Your task to perform on an android device: turn off priority inbox in the gmail app Image 0: 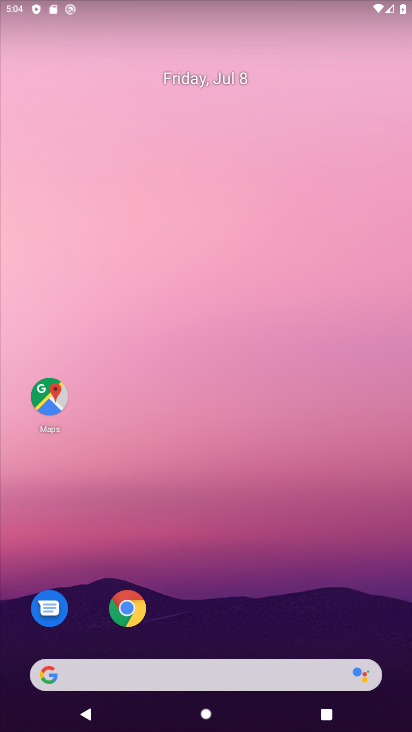
Step 0: drag from (308, 614) to (325, 259)
Your task to perform on an android device: turn off priority inbox in the gmail app Image 1: 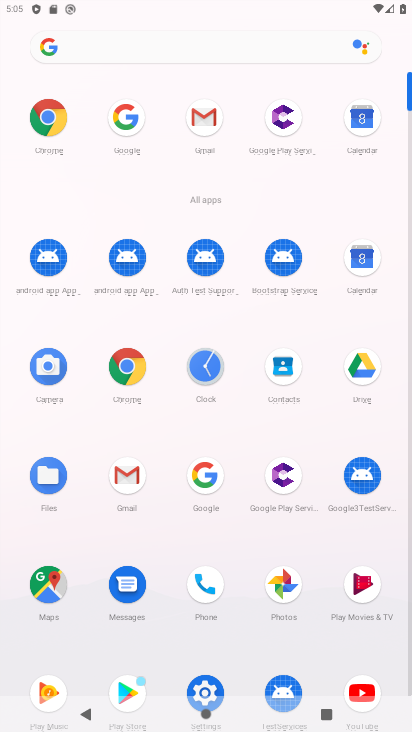
Step 1: click (134, 487)
Your task to perform on an android device: turn off priority inbox in the gmail app Image 2: 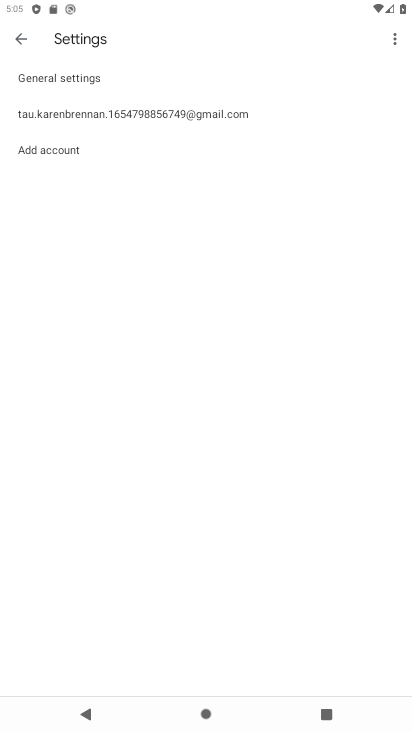
Step 2: click (156, 113)
Your task to perform on an android device: turn off priority inbox in the gmail app Image 3: 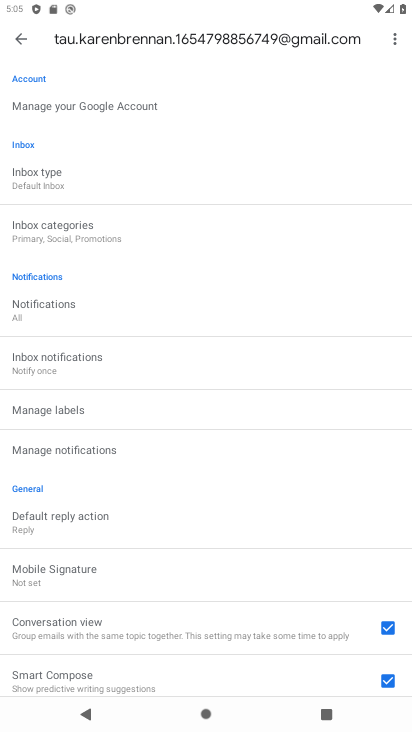
Step 3: click (46, 182)
Your task to perform on an android device: turn off priority inbox in the gmail app Image 4: 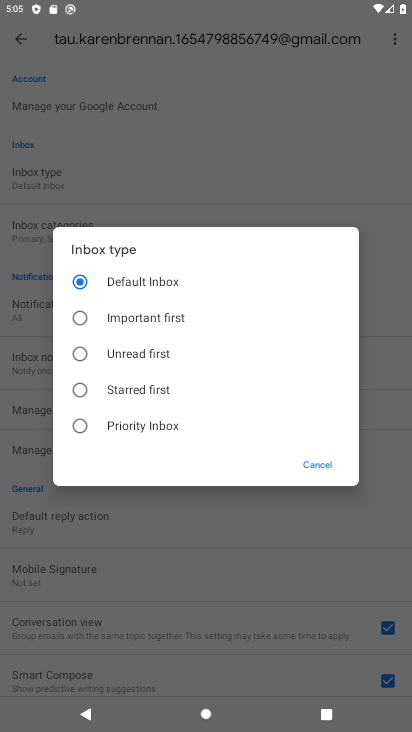
Step 4: task complete